Your task to perform on an android device: Go to wifi settings Image 0: 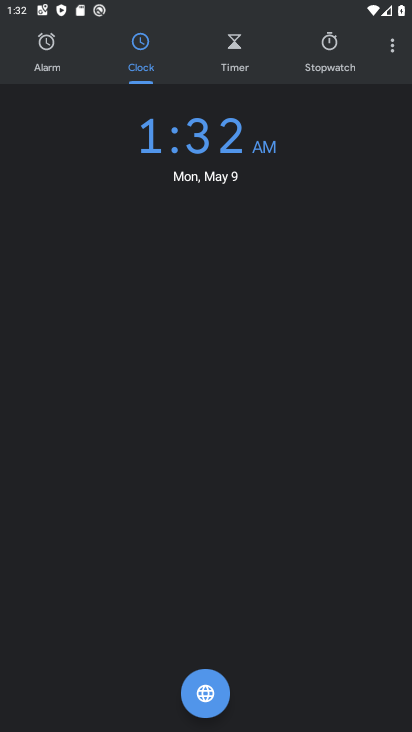
Step 0: press home button
Your task to perform on an android device: Go to wifi settings Image 1: 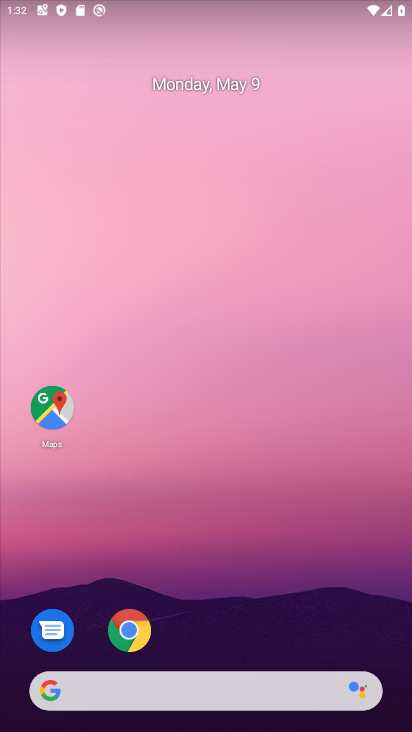
Step 1: drag from (232, 715) to (215, 339)
Your task to perform on an android device: Go to wifi settings Image 2: 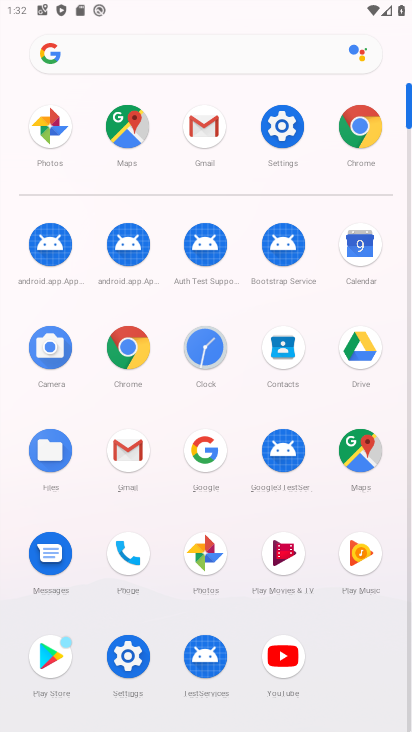
Step 2: click (302, 144)
Your task to perform on an android device: Go to wifi settings Image 3: 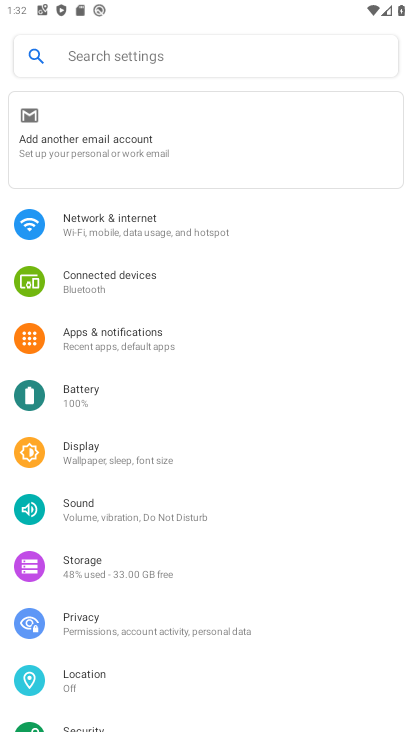
Step 3: click (154, 240)
Your task to perform on an android device: Go to wifi settings Image 4: 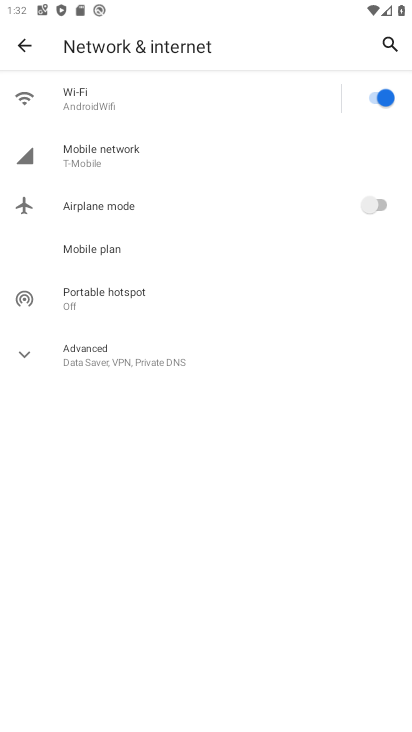
Step 4: click (122, 93)
Your task to perform on an android device: Go to wifi settings Image 5: 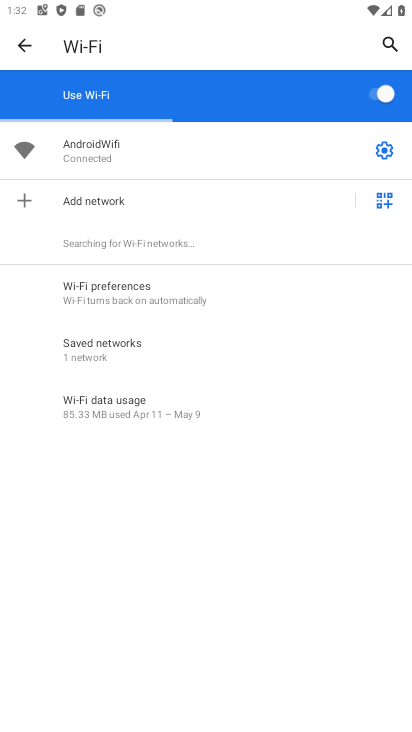
Step 5: task complete